Your task to perform on an android device: Go to eBay Image 0: 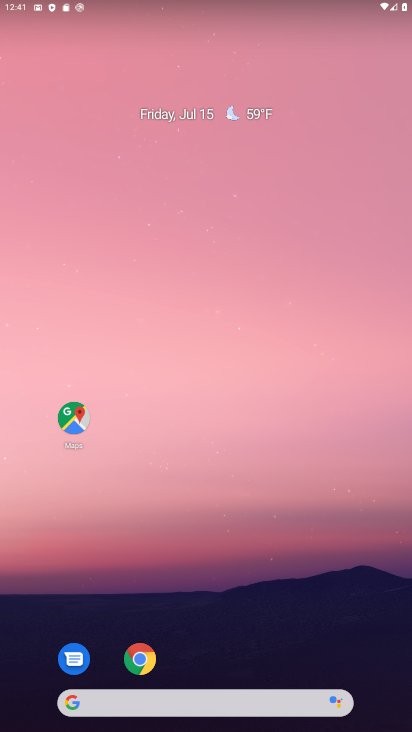
Step 0: click (142, 657)
Your task to perform on an android device: Go to eBay Image 1: 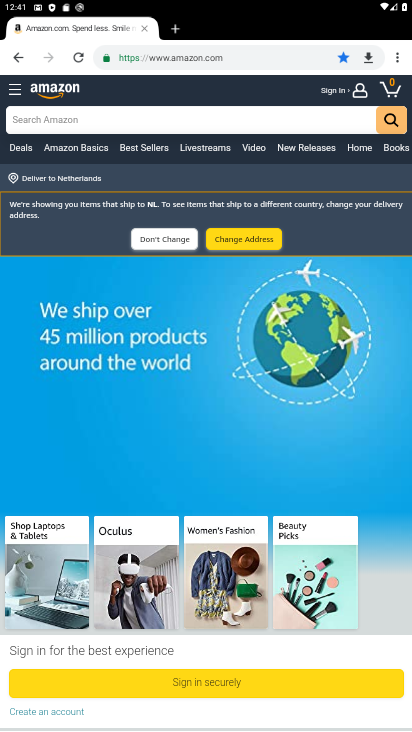
Step 1: click (399, 58)
Your task to perform on an android device: Go to eBay Image 2: 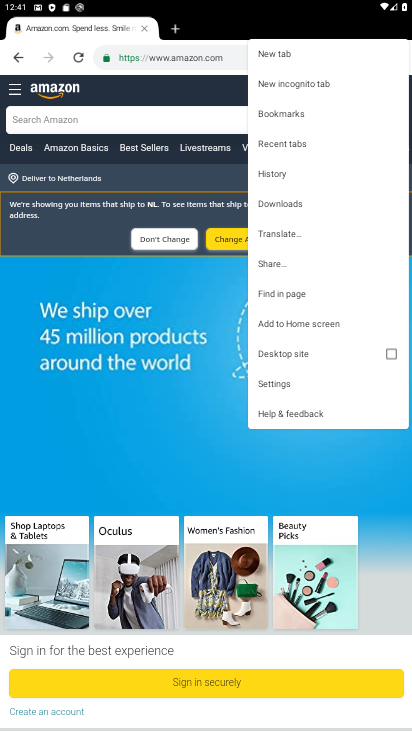
Step 2: click (277, 55)
Your task to perform on an android device: Go to eBay Image 3: 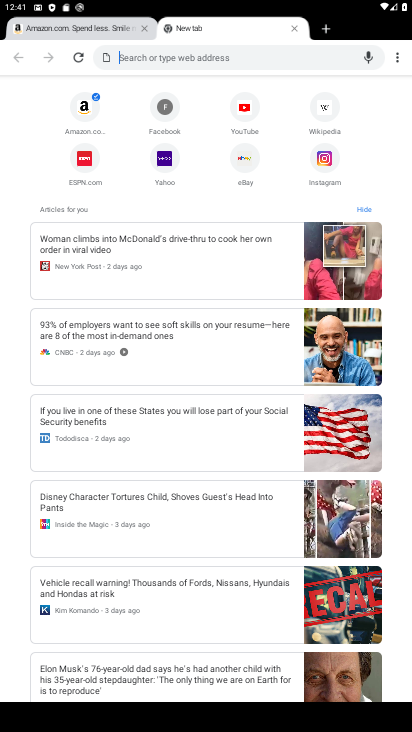
Step 3: click (242, 160)
Your task to perform on an android device: Go to eBay Image 4: 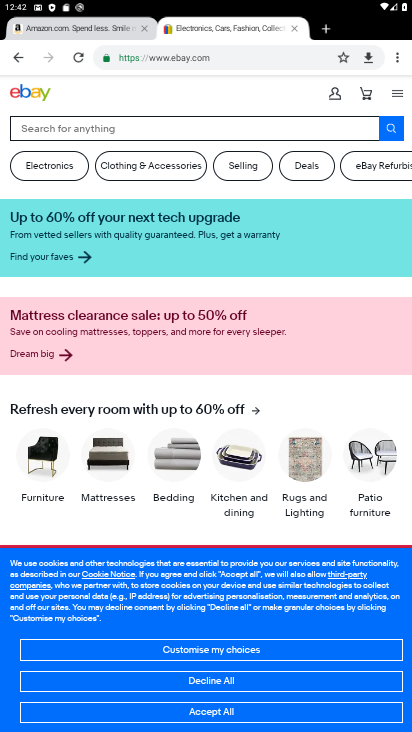
Step 4: task complete